Your task to perform on an android device: uninstall "NewsBreak: Local News & Alerts" Image 0: 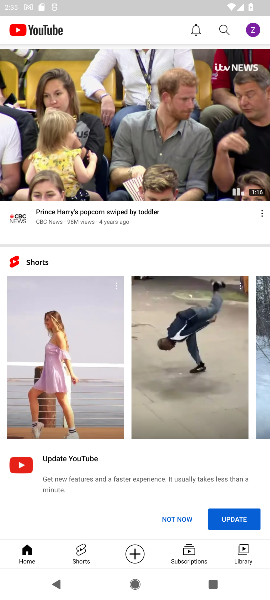
Step 0: press home button
Your task to perform on an android device: uninstall "NewsBreak: Local News & Alerts" Image 1: 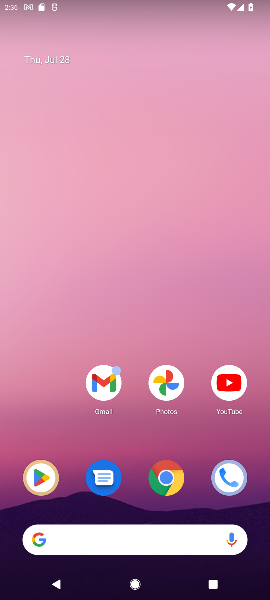
Step 1: drag from (54, 416) to (68, 50)
Your task to perform on an android device: uninstall "NewsBreak: Local News & Alerts" Image 2: 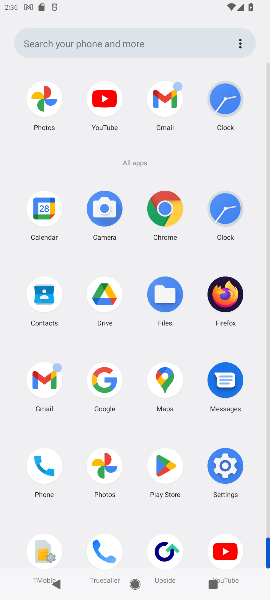
Step 2: click (171, 461)
Your task to perform on an android device: uninstall "NewsBreak: Local News & Alerts" Image 3: 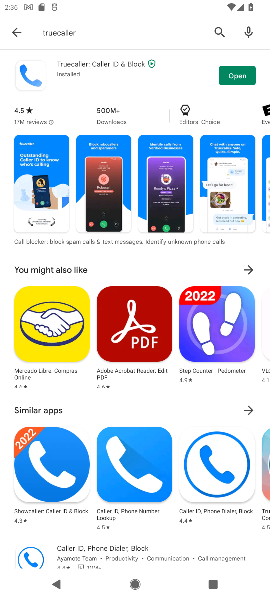
Step 3: click (91, 29)
Your task to perform on an android device: uninstall "NewsBreak: Local News & Alerts" Image 4: 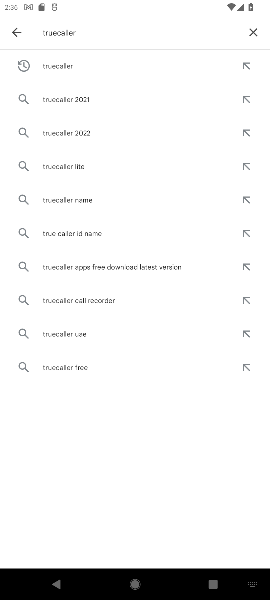
Step 4: click (253, 30)
Your task to perform on an android device: uninstall "NewsBreak: Local News & Alerts" Image 5: 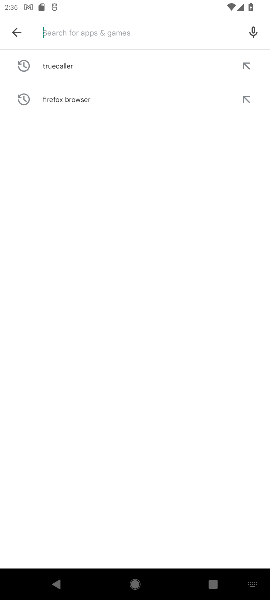
Step 5: type "NewsBreak: Local News & Alerts"
Your task to perform on an android device: uninstall "NewsBreak: Local News & Alerts" Image 6: 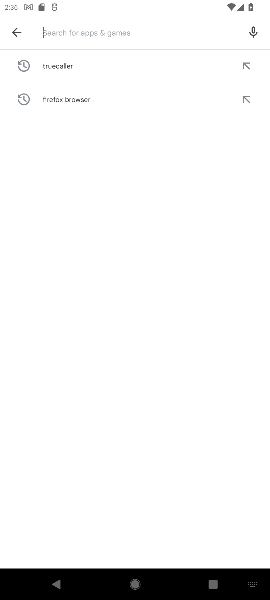
Step 6: click (59, 33)
Your task to perform on an android device: uninstall "NewsBreak: Local News & Alerts" Image 7: 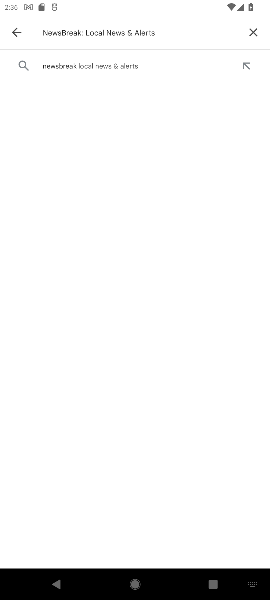
Step 7: click (104, 67)
Your task to perform on an android device: uninstall "NewsBreak: Local News & Alerts" Image 8: 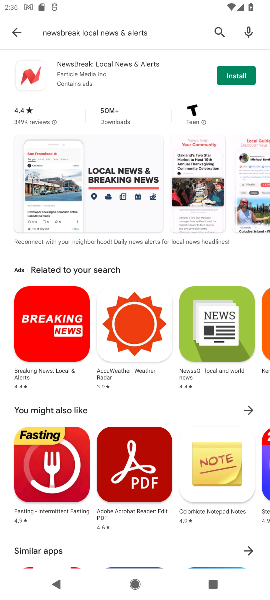
Step 8: task complete